Your task to perform on an android device: Search for Italian restaurants on Maps Image 0: 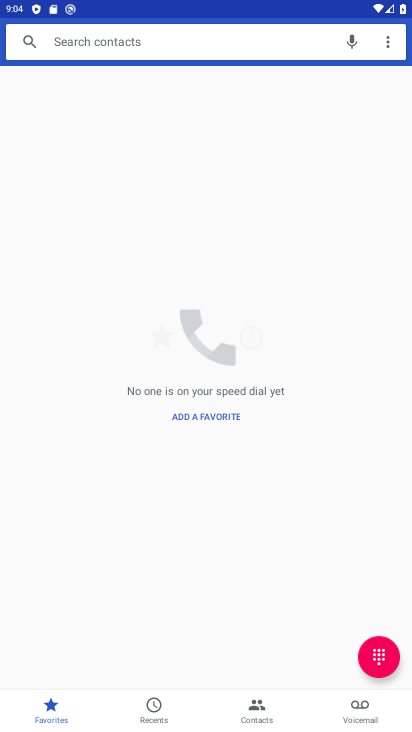
Step 0: press home button
Your task to perform on an android device: Search for Italian restaurants on Maps Image 1: 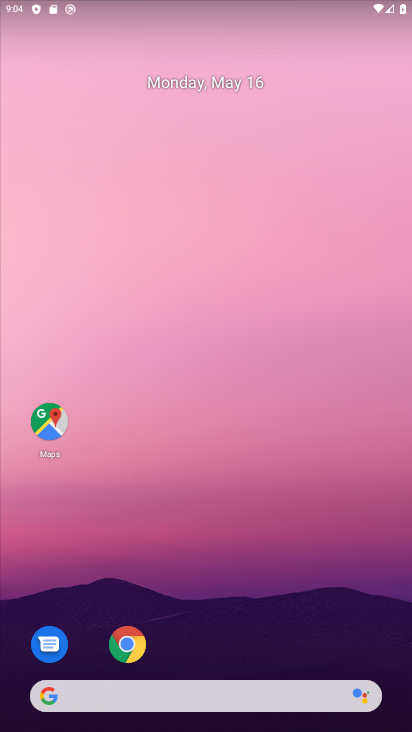
Step 1: click (48, 404)
Your task to perform on an android device: Search for Italian restaurants on Maps Image 2: 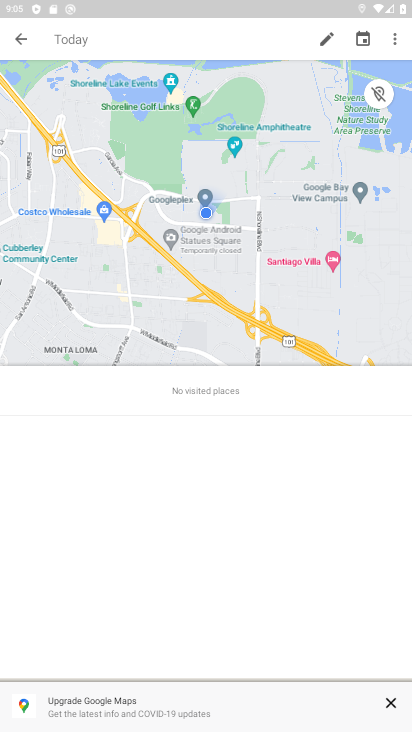
Step 2: click (31, 37)
Your task to perform on an android device: Search for Italian restaurants on Maps Image 3: 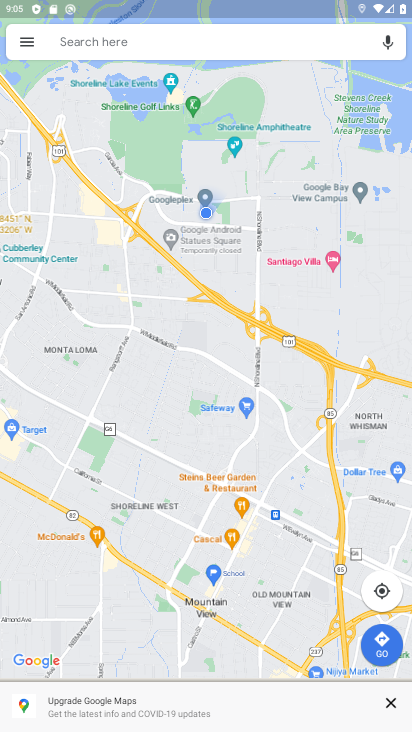
Step 3: click (100, 40)
Your task to perform on an android device: Search for Italian restaurants on Maps Image 4: 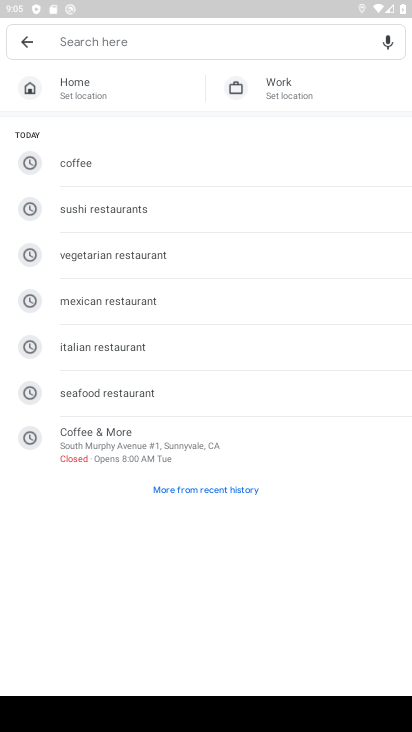
Step 4: click (121, 346)
Your task to perform on an android device: Search for Italian restaurants on Maps Image 5: 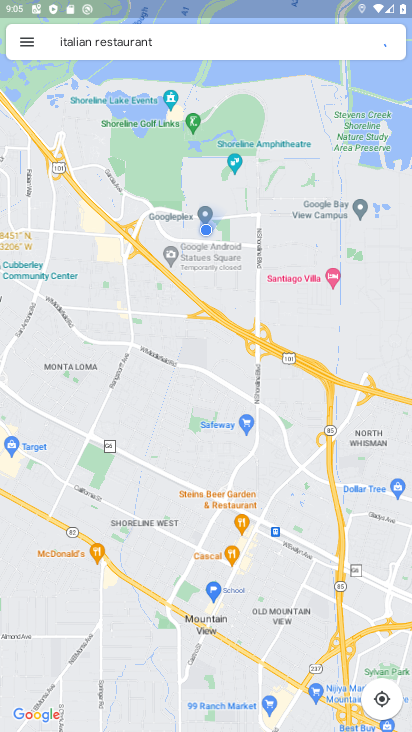
Step 5: task complete